Your task to perform on an android device: change the clock display to analog Image 0: 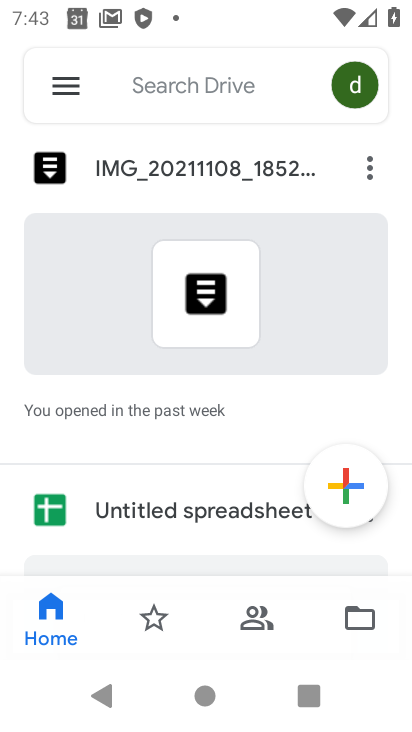
Step 0: press home button
Your task to perform on an android device: change the clock display to analog Image 1: 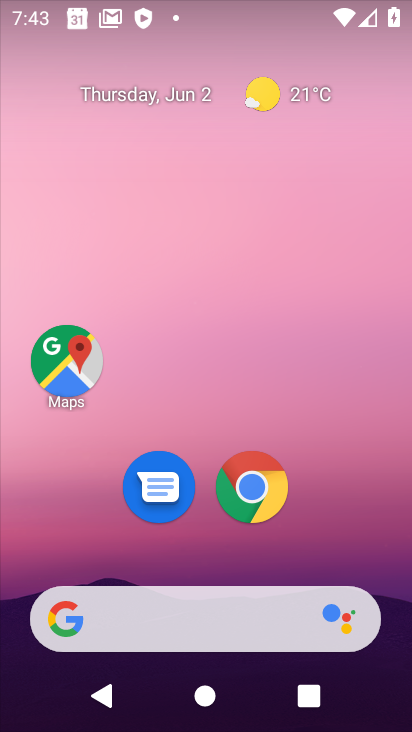
Step 1: drag from (197, 537) to (173, 132)
Your task to perform on an android device: change the clock display to analog Image 2: 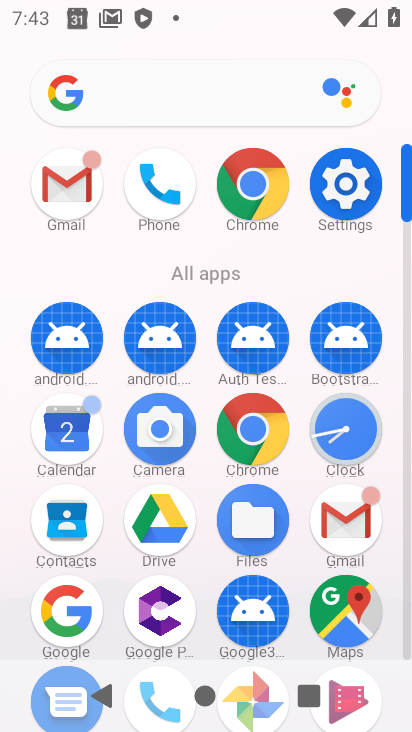
Step 2: click (359, 439)
Your task to perform on an android device: change the clock display to analog Image 3: 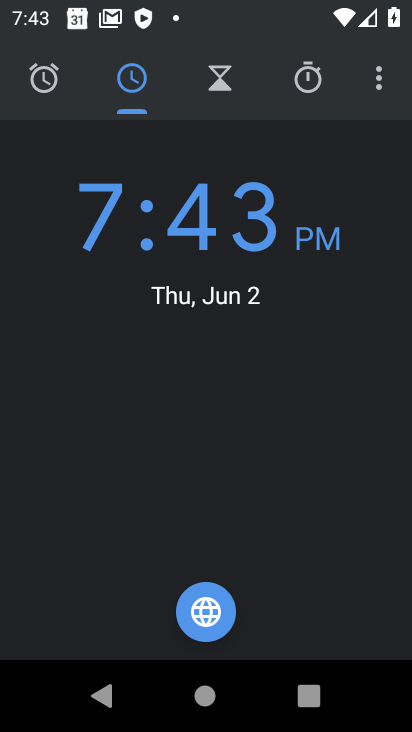
Step 3: click (380, 84)
Your task to perform on an android device: change the clock display to analog Image 4: 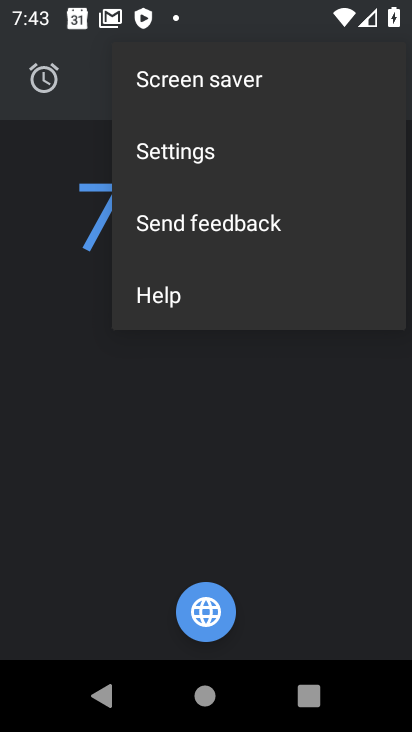
Step 4: click (213, 146)
Your task to perform on an android device: change the clock display to analog Image 5: 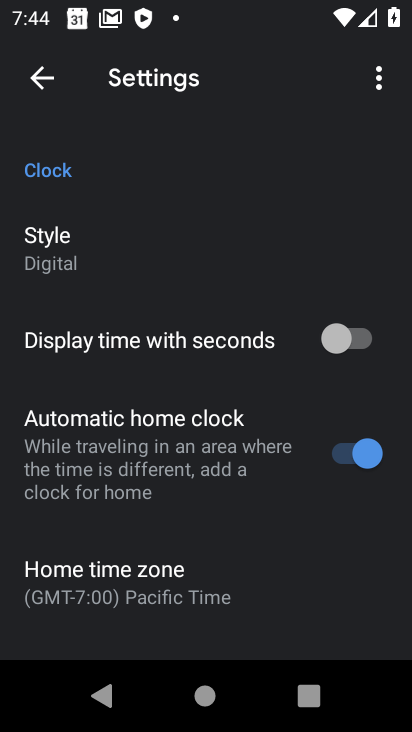
Step 5: click (28, 265)
Your task to perform on an android device: change the clock display to analog Image 6: 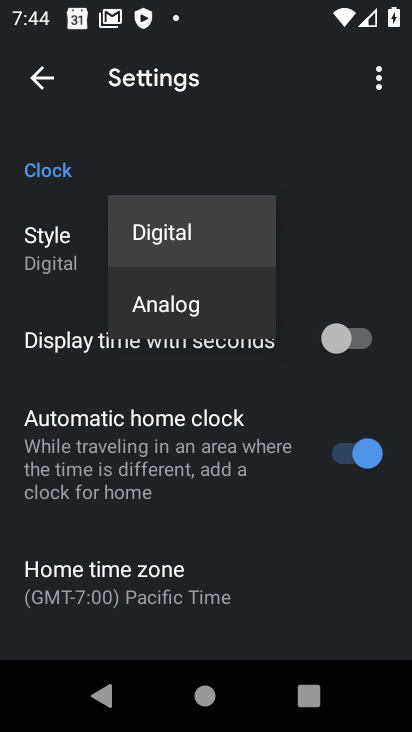
Step 6: click (190, 301)
Your task to perform on an android device: change the clock display to analog Image 7: 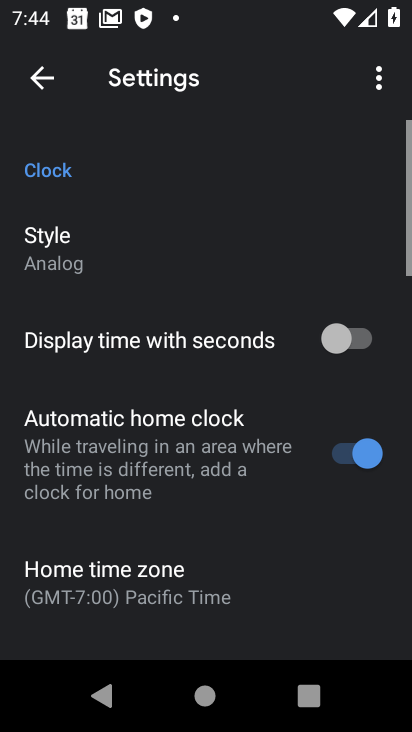
Step 7: task complete